Your task to perform on an android device: change timer sound Image 0: 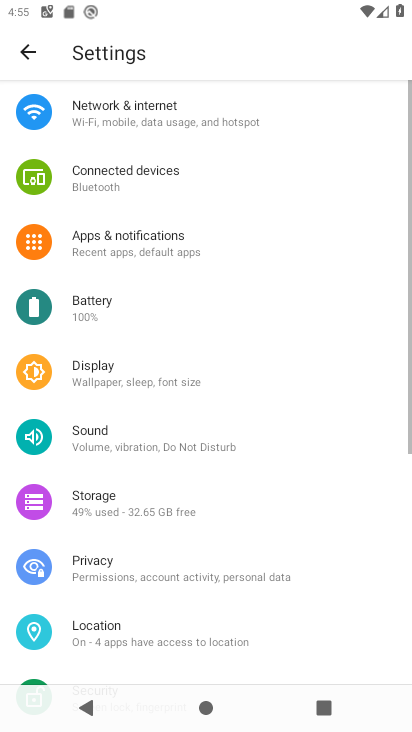
Step 0: click (162, 446)
Your task to perform on an android device: change timer sound Image 1: 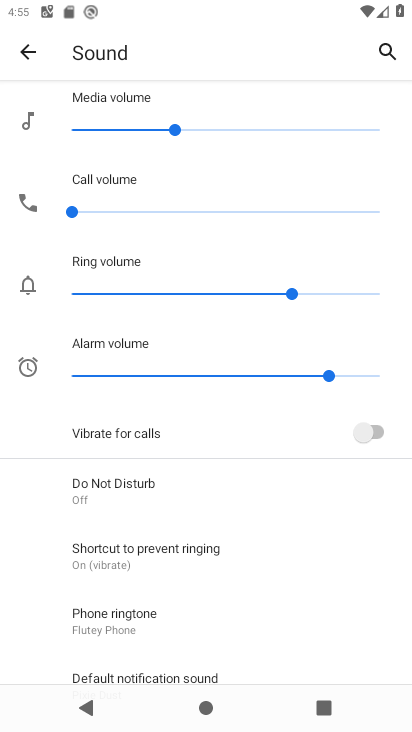
Step 1: drag from (214, 577) to (186, 330)
Your task to perform on an android device: change timer sound Image 2: 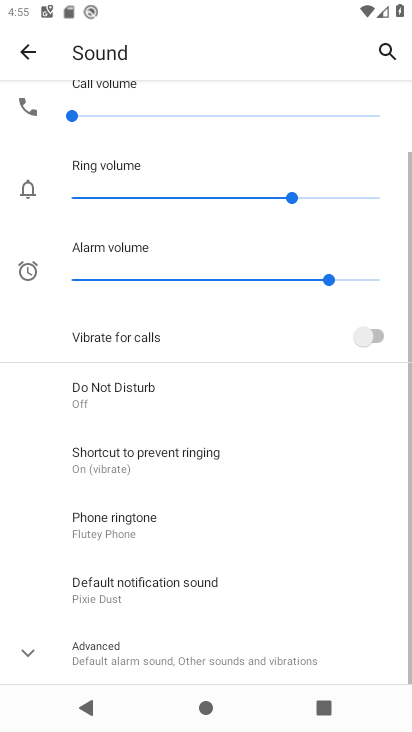
Step 2: click (137, 640)
Your task to perform on an android device: change timer sound Image 3: 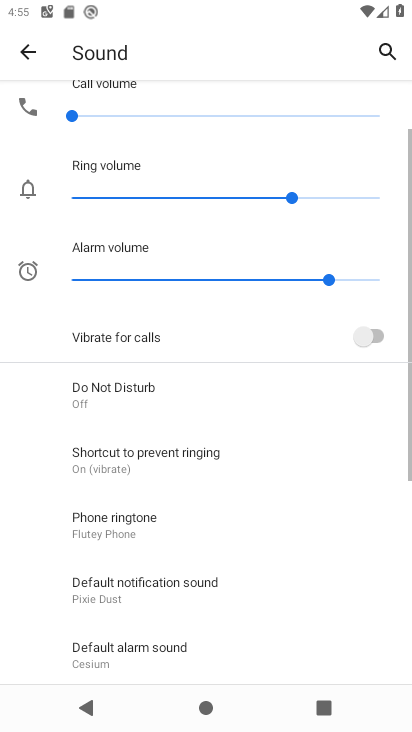
Step 3: drag from (195, 577) to (158, 228)
Your task to perform on an android device: change timer sound Image 4: 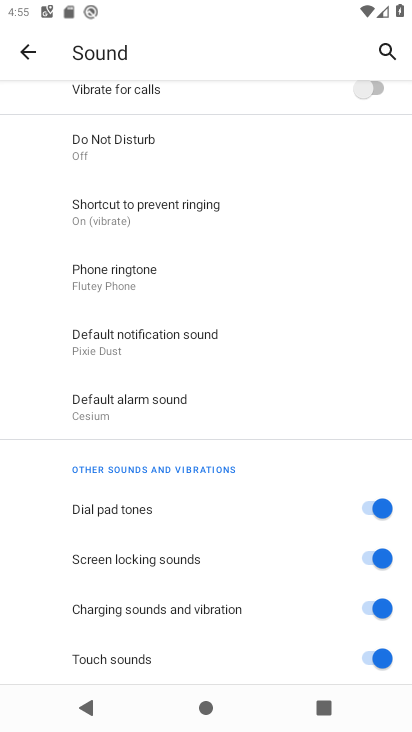
Step 4: drag from (183, 611) to (168, 239)
Your task to perform on an android device: change timer sound Image 5: 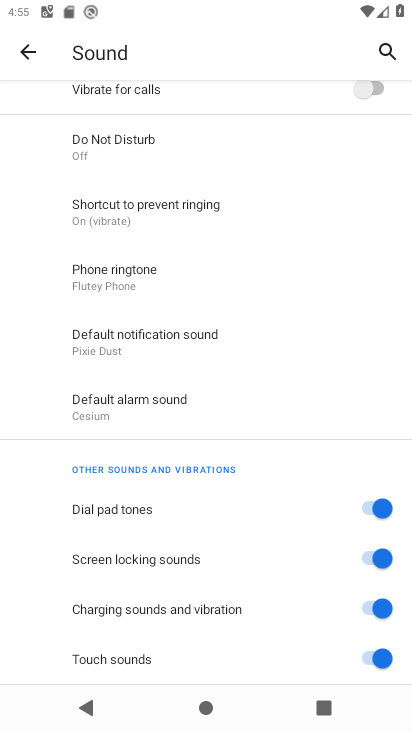
Step 5: press home button
Your task to perform on an android device: change timer sound Image 6: 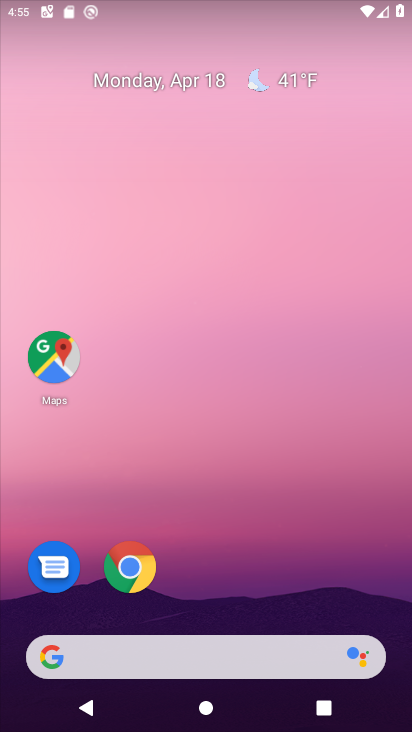
Step 6: click (239, 0)
Your task to perform on an android device: change timer sound Image 7: 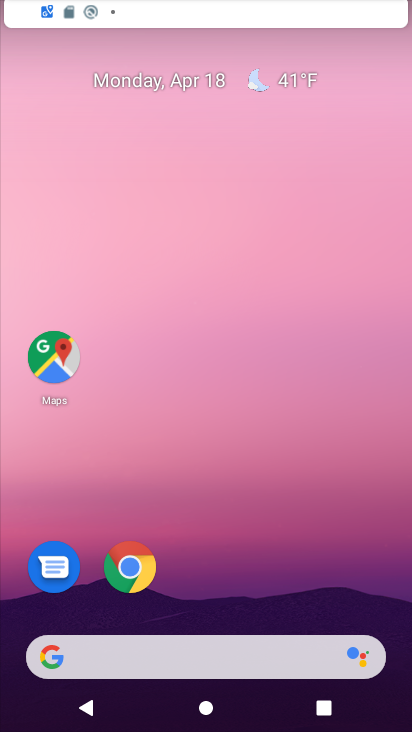
Step 7: drag from (263, 569) to (242, 6)
Your task to perform on an android device: change timer sound Image 8: 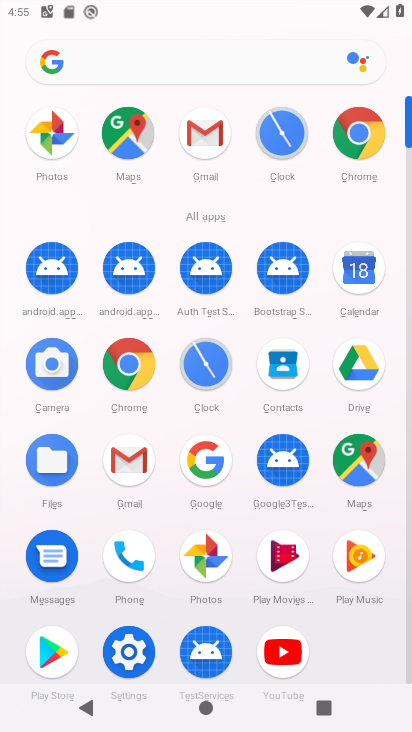
Step 8: click (204, 377)
Your task to perform on an android device: change timer sound Image 9: 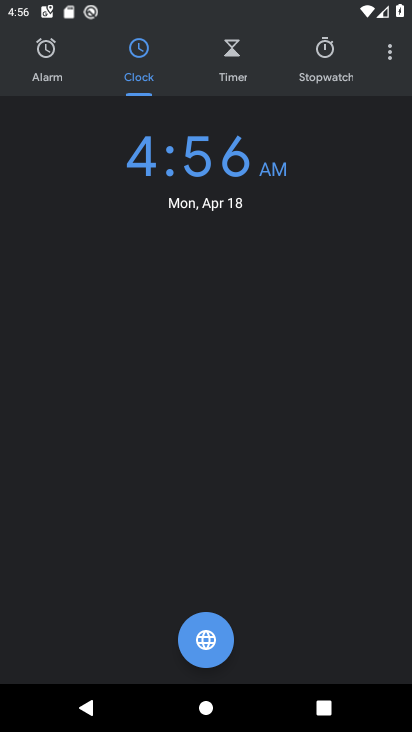
Step 9: click (382, 61)
Your task to perform on an android device: change timer sound Image 10: 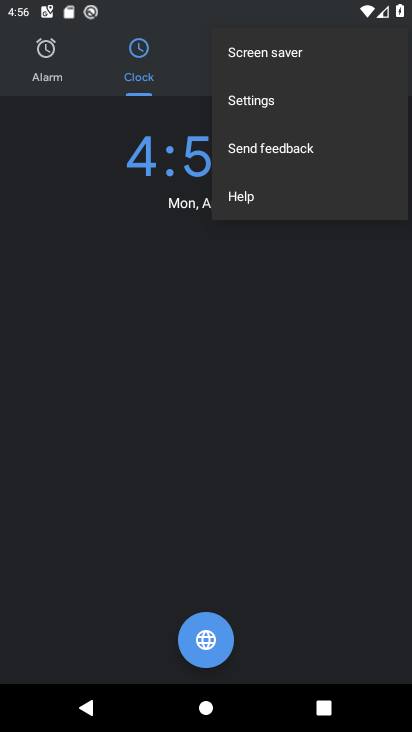
Step 10: click (263, 93)
Your task to perform on an android device: change timer sound Image 11: 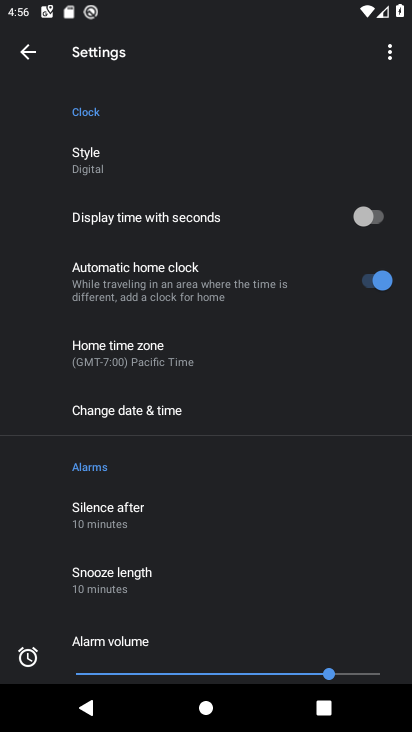
Step 11: drag from (215, 574) to (189, 106)
Your task to perform on an android device: change timer sound Image 12: 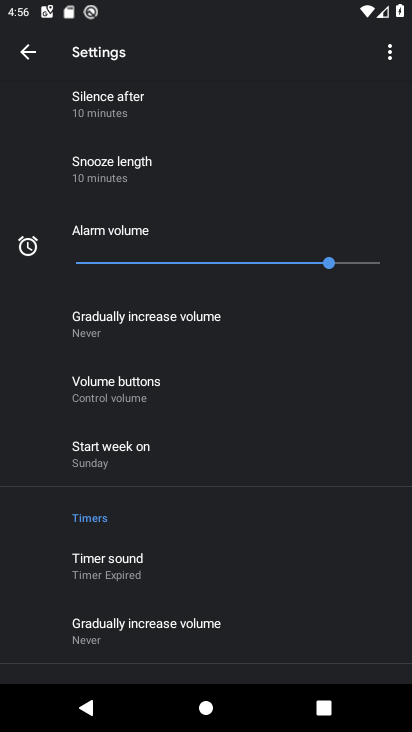
Step 12: click (147, 573)
Your task to perform on an android device: change timer sound Image 13: 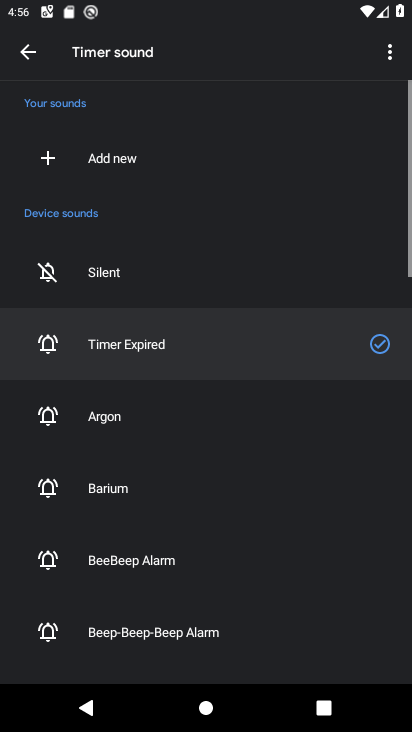
Step 13: click (156, 421)
Your task to perform on an android device: change timer sound Image 14: 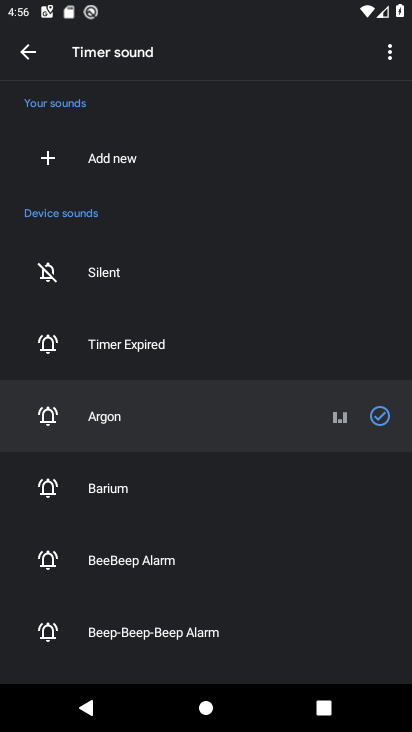
Step 14: task complete